Your task to perform on an android device: Search for vegetarian restaurants on Maps Image 0: 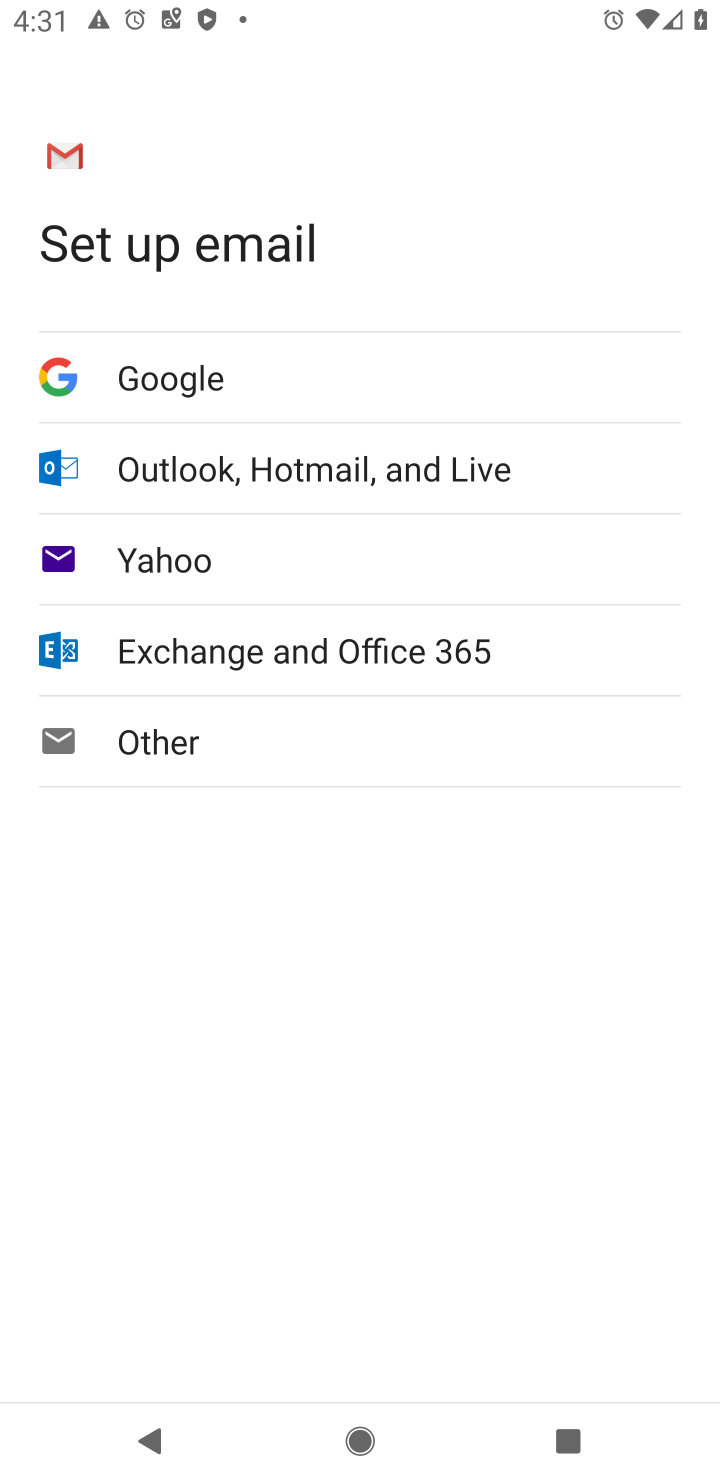
Step 0: press home button
Your task to perform on an android device: Search for vegetarian restaurants on Maps Image 1: 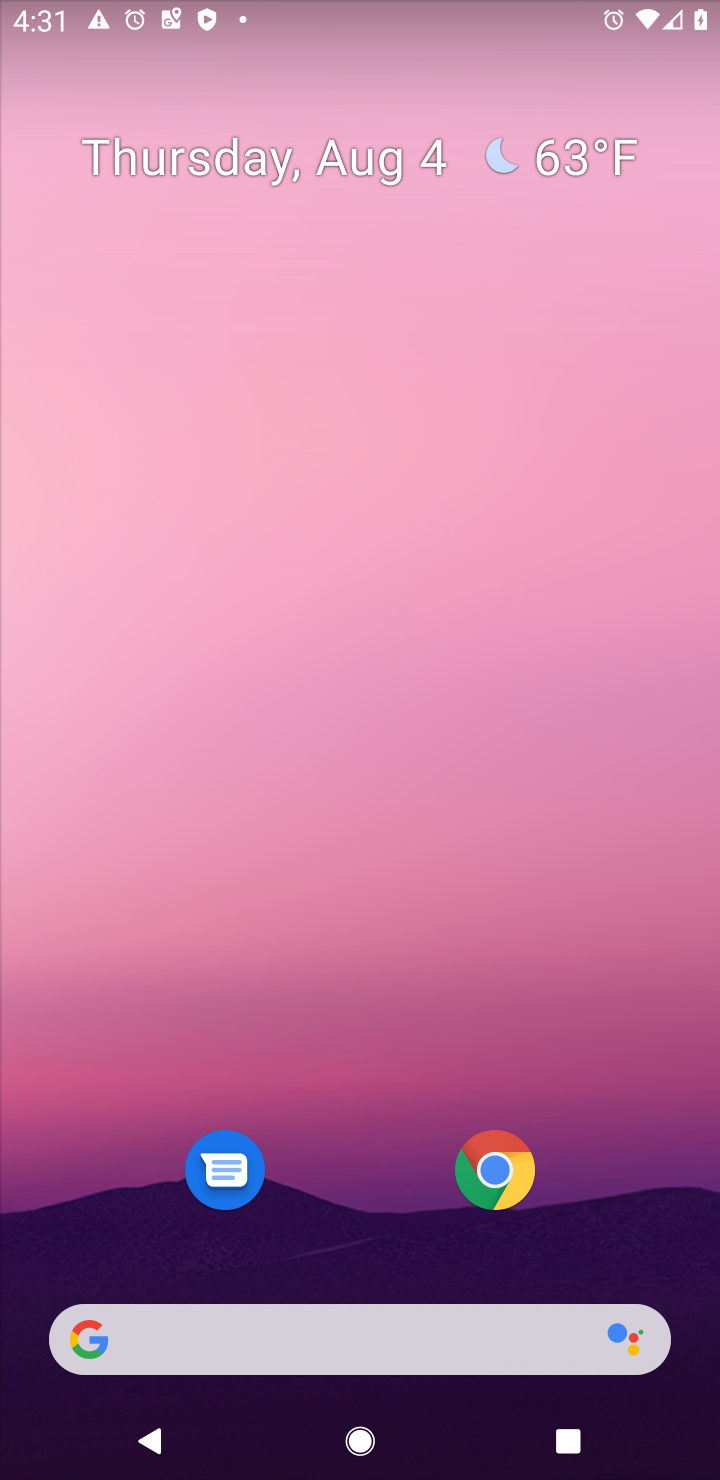
Step 1: drag from (613, 1196) to (582, 277)
Your task to perform on an android device: Search for vegetarian restaurants on Maps Image 2: 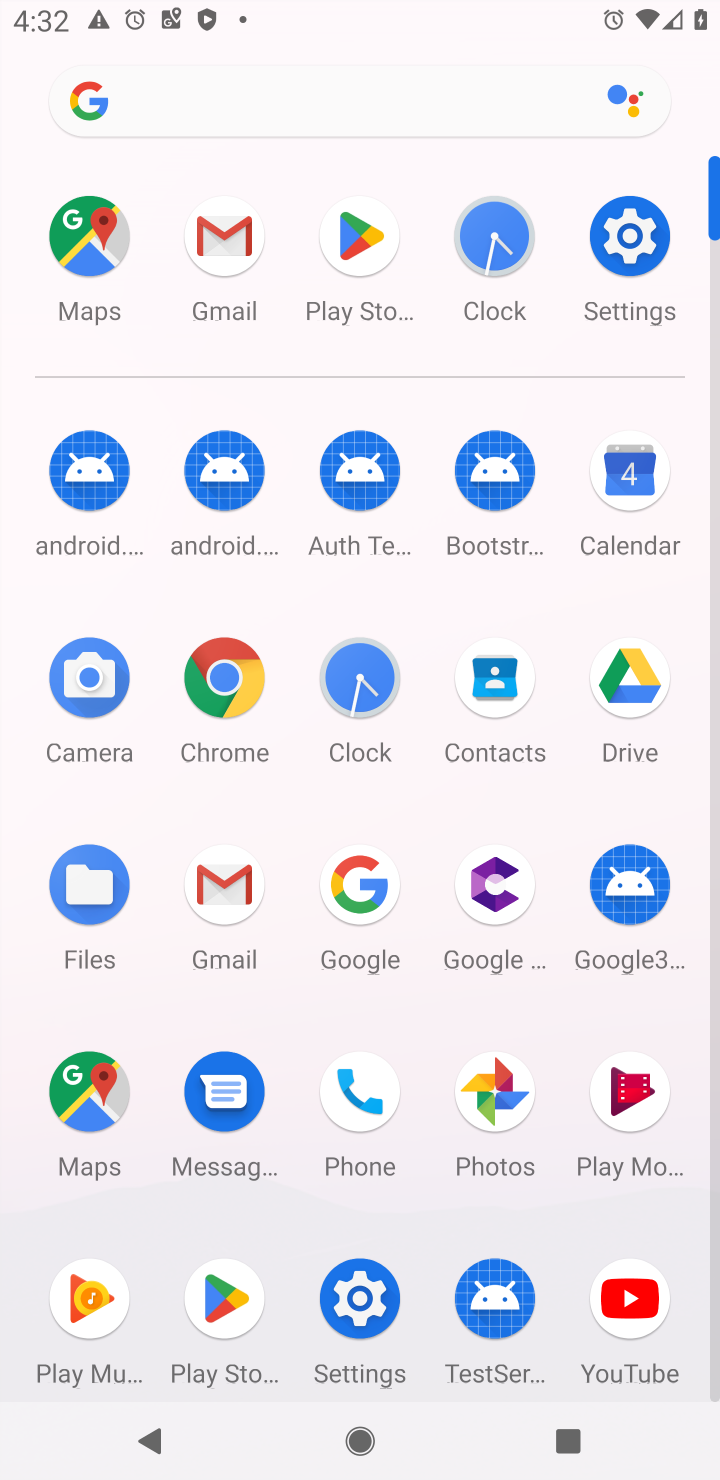
Step 2: click (88, 1090)
Your task to perform on an android device: Search for vegetarian restaurants on Maps Image 3: 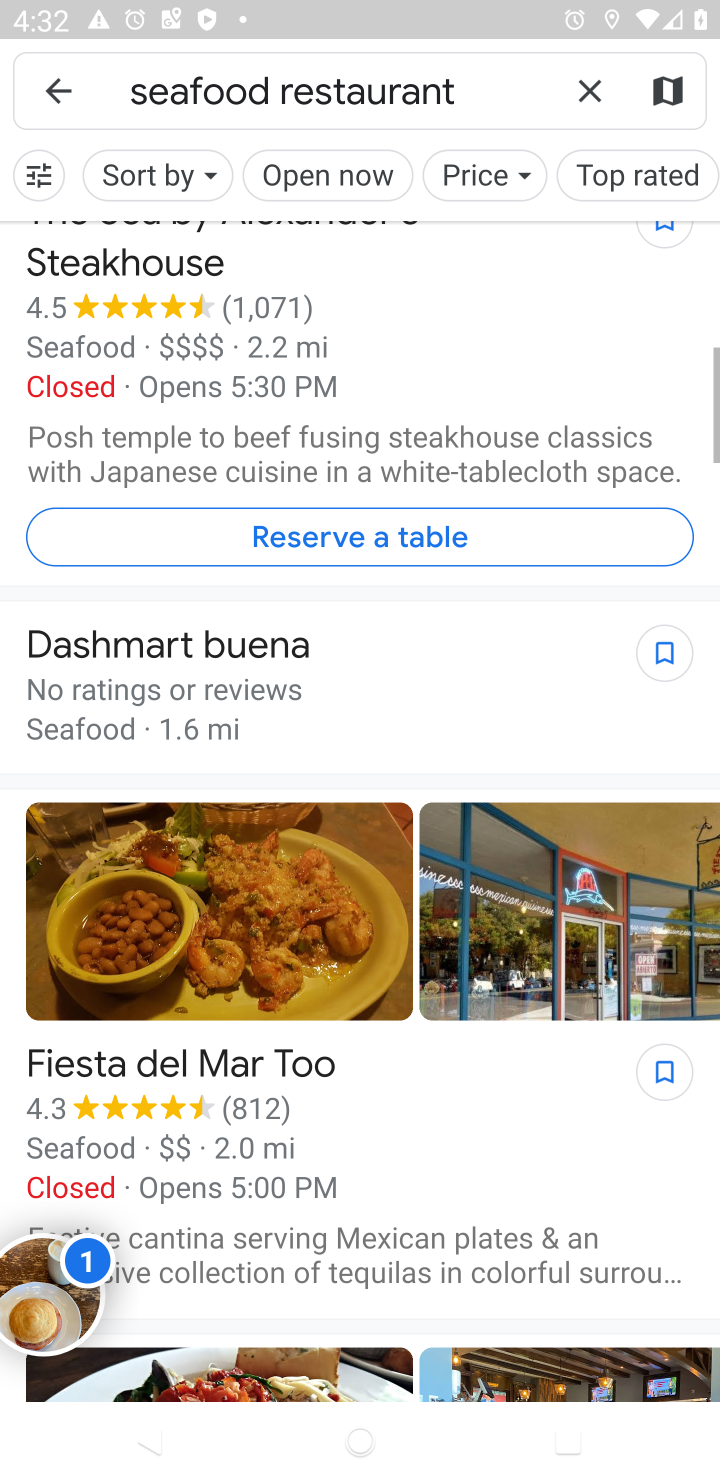
Step 3: click (588, 90)
Your task to perform on an android device: Search for vegetarian restaurants on Maps Image 4: 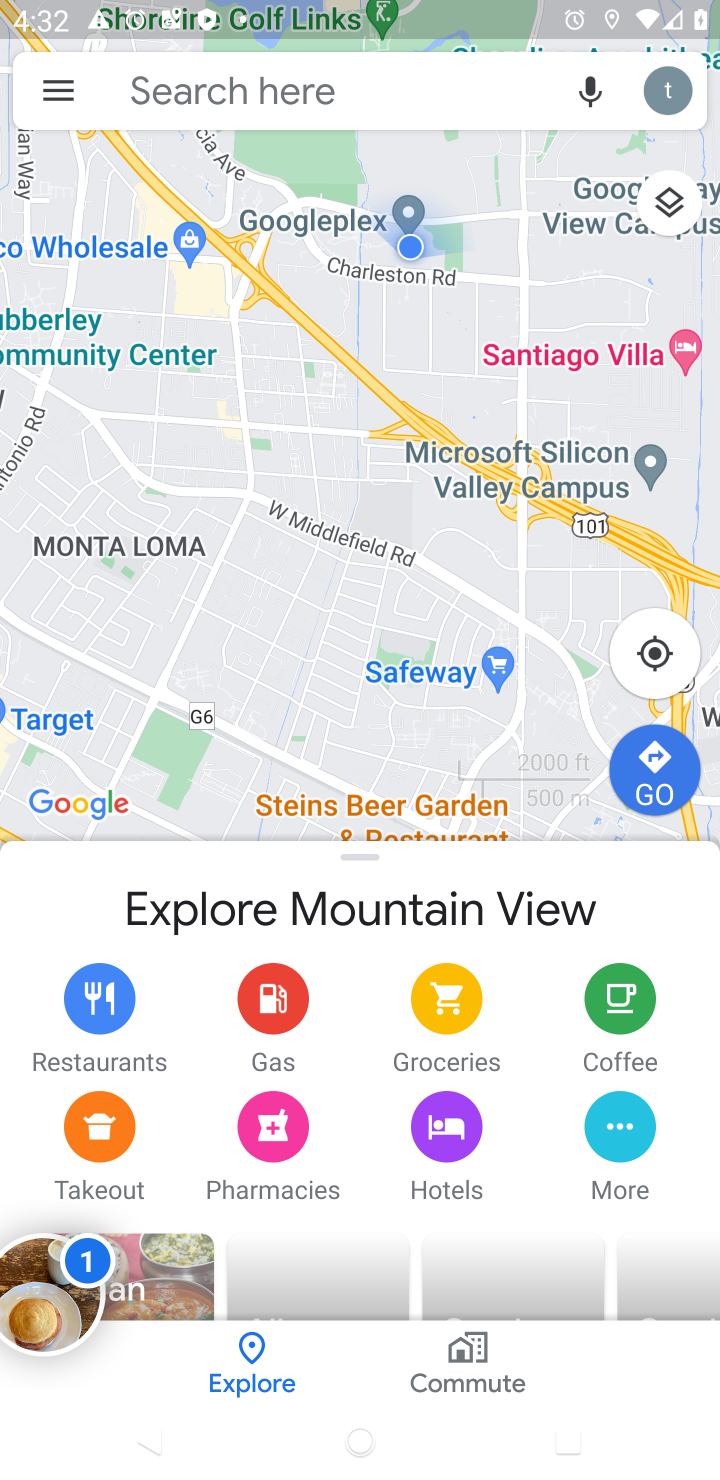
Step 4: click (235, 101)
Your task to perform on an android device: Search for vegetarian restaurants on Maps Image 5: 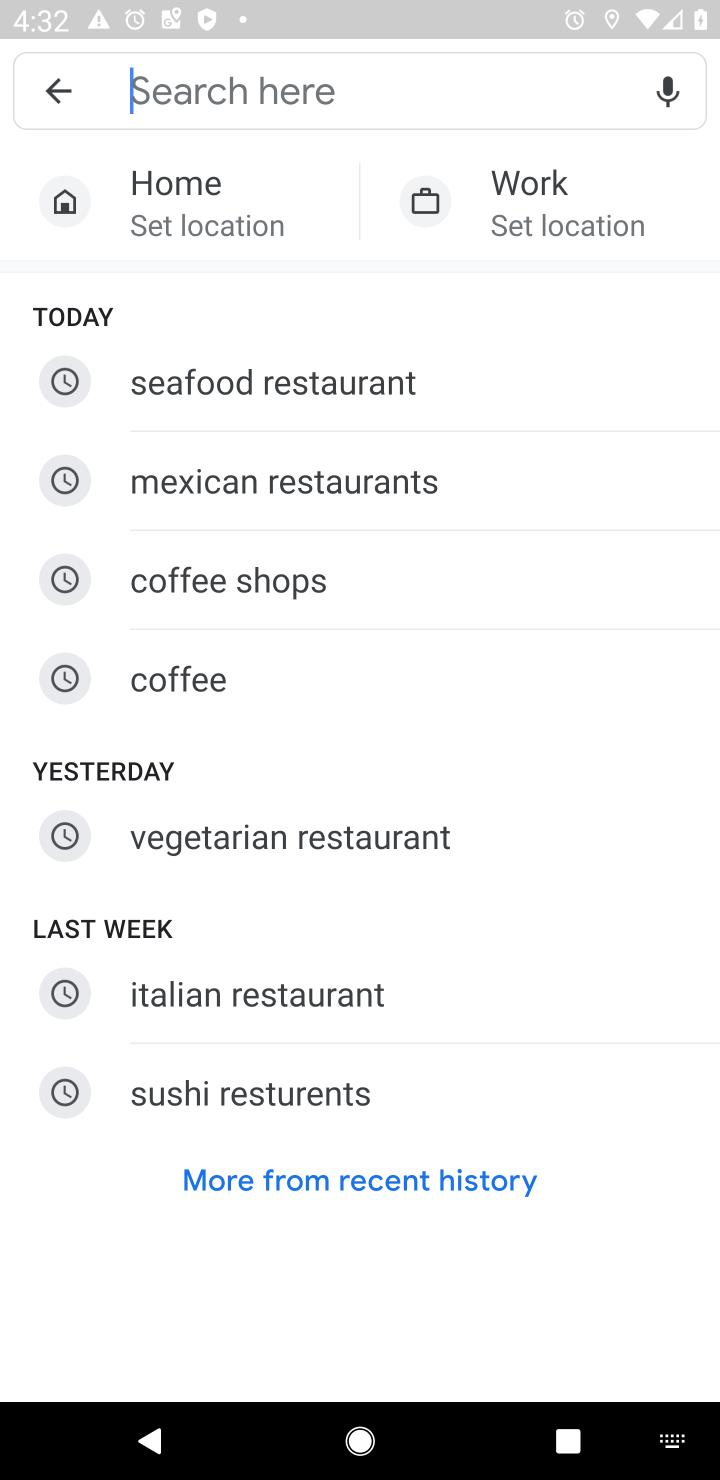
Step 5: type "vegetarian restaurants"
Your task to perform on an android device: Search for vegetarian restaurants on Maps Image 6: 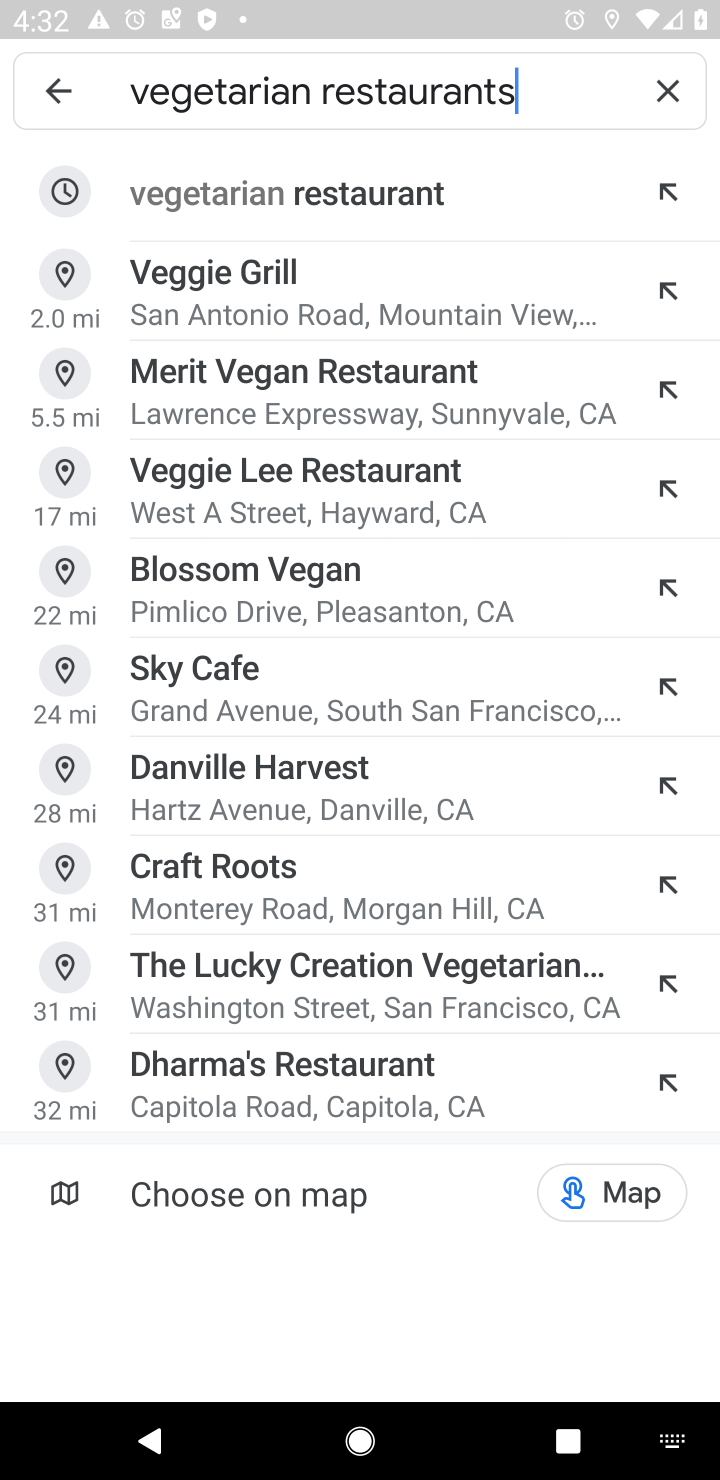
Step 6: click (248, 196)
Your task to perform on an android device: Search for vegetarian restaurants on Maps Image 7: 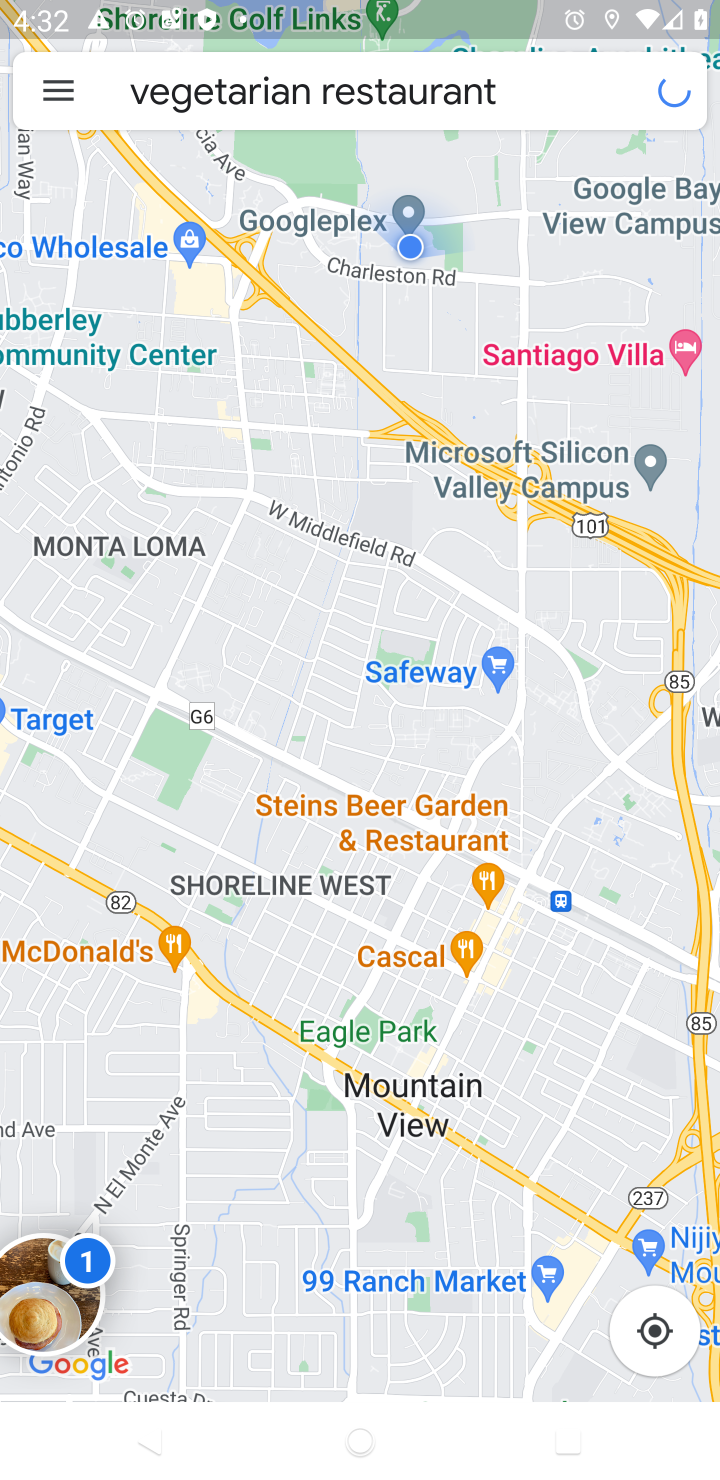
Step 7: task complete